Your task to perform on an android device: Open eBay Image 0: 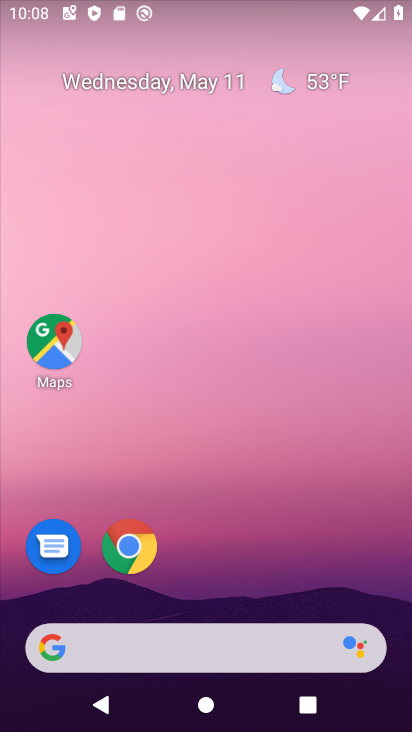
Step 0: drag from (380, 613) to (315, 68)
Your task to perform on an android device: Open eBay Image 1: 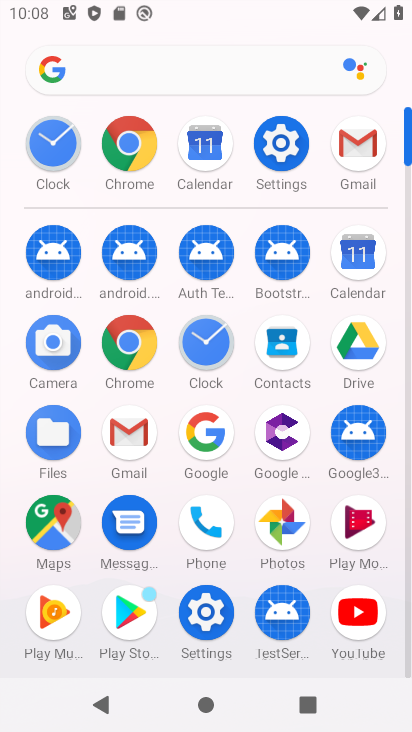
Step 1: click (116, 346)
Your task to perform on an android device: Open eBay Image 2: 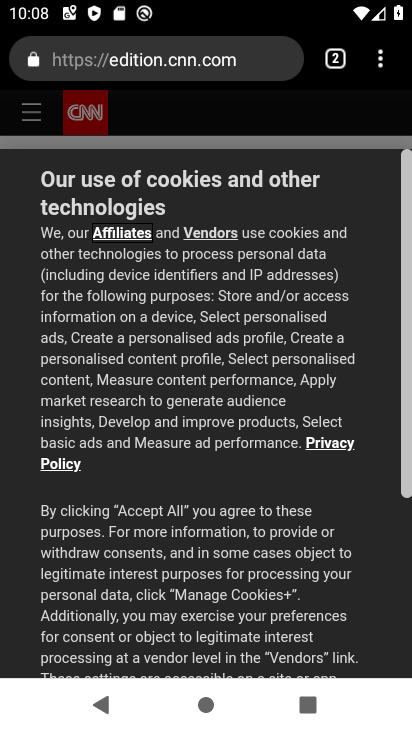
Step 2: press back button
Your task to perform on an android device: Open eBay Image 3: 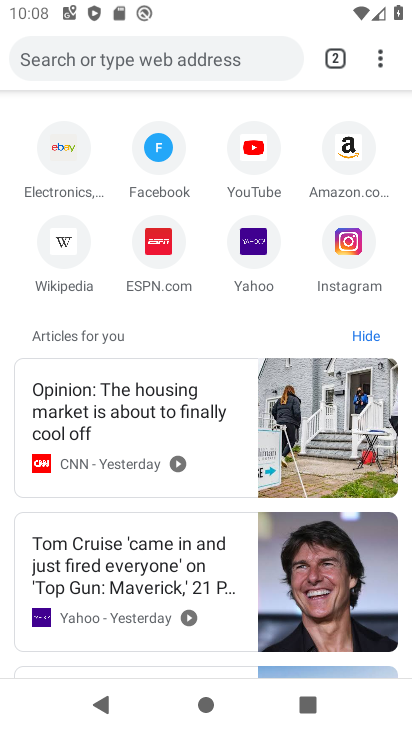
Step 3: click (54, 146)
Your task to perform on an android device: Open eBay Image 4: 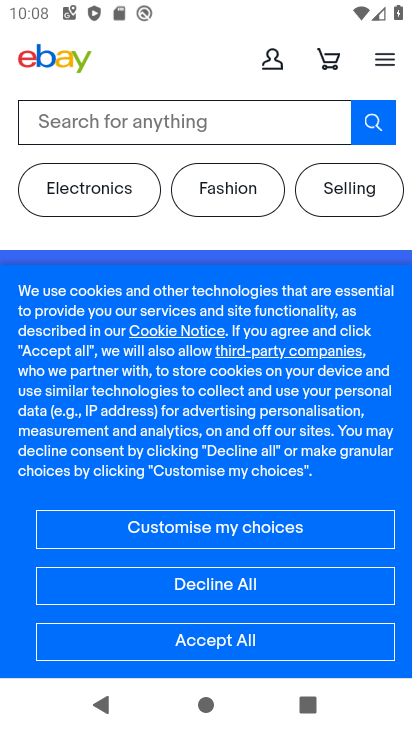
Step 4: task complete